Your task to perform on an android device: Open the calendar and show me this week's events Image 0: 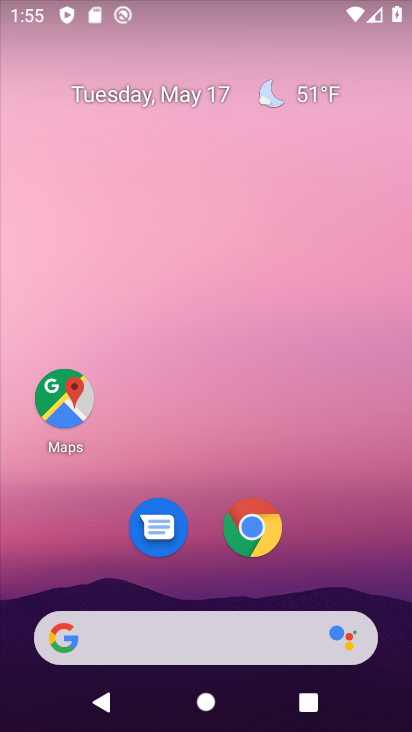
Step 0: drag from (337, 562) to (222, 262)
Your task to perform on an android device: Open the calendar and show me this week's events Image 1: 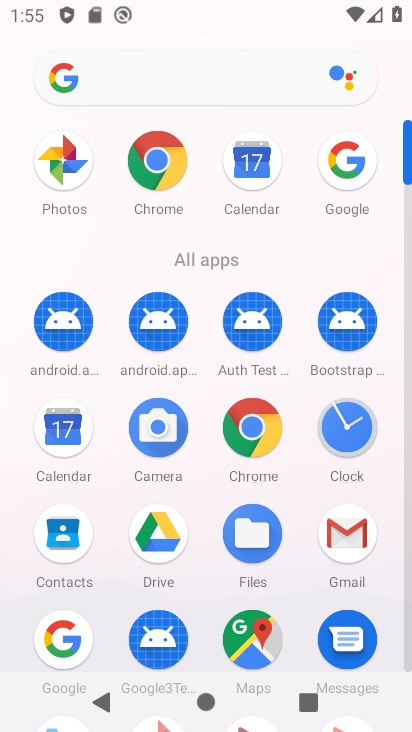
Step 1: click (64, 429)
Your task to perform on an android device: Open the calendar and show me this week's events Image 2: 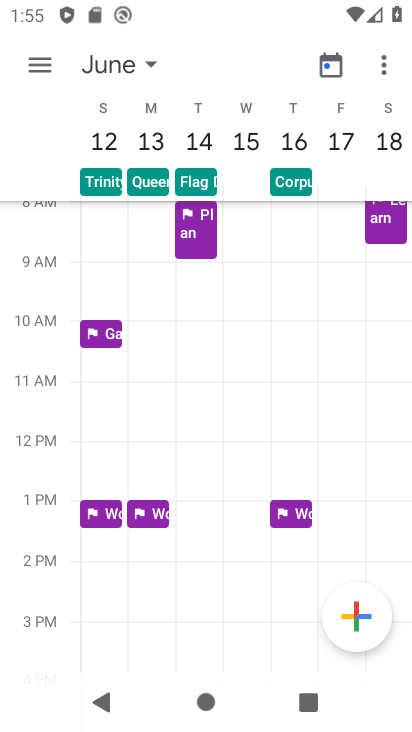
Step 2: click (335, 67)
Your task to perform on an android device: Open the calendar and show me this week's events Image 3: 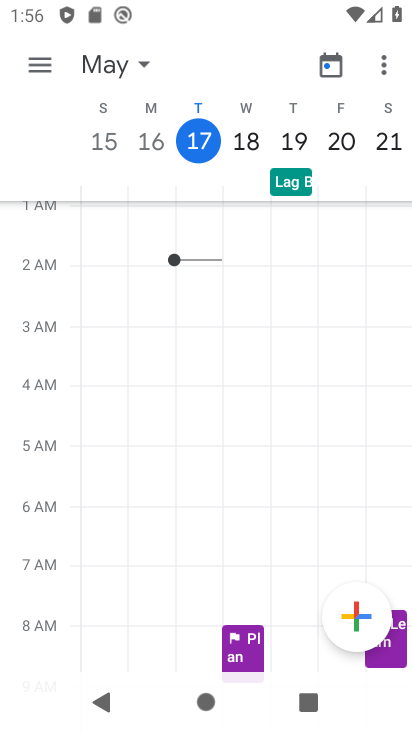
Step 3: click (41, 66)
Your task to perform on an android device: Open the calendar and show me this week's events Image 4: 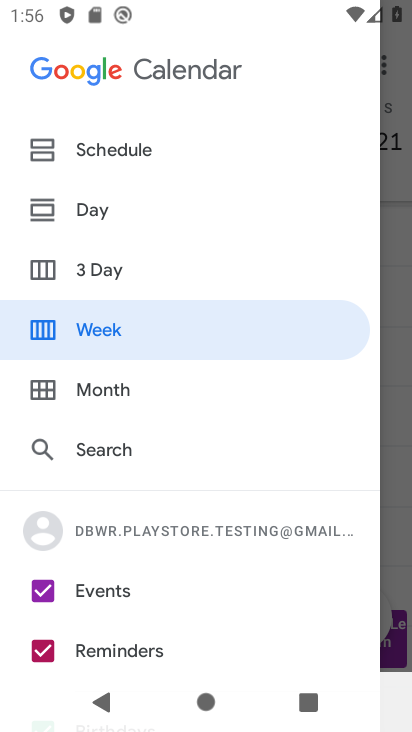
Step 4: click (100, 143)
Your task to perform on an android device: Open the calendar and show me this week's events Image 5: 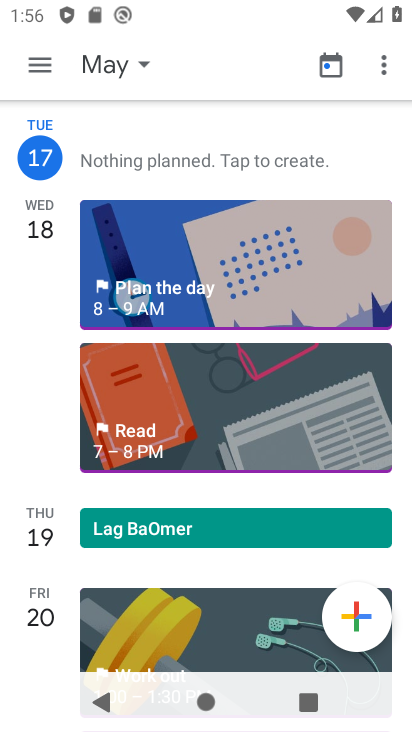
Step 5: task complete